Your task to perform on an android device: Open Chrome and go to settings Image 0: 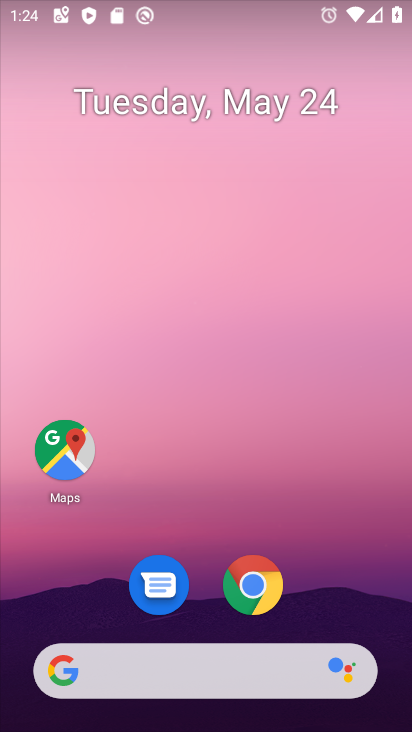
Step 0: click (268, 584)
Your task to perform on an android device: Open Chrome and go to settings Image 1: 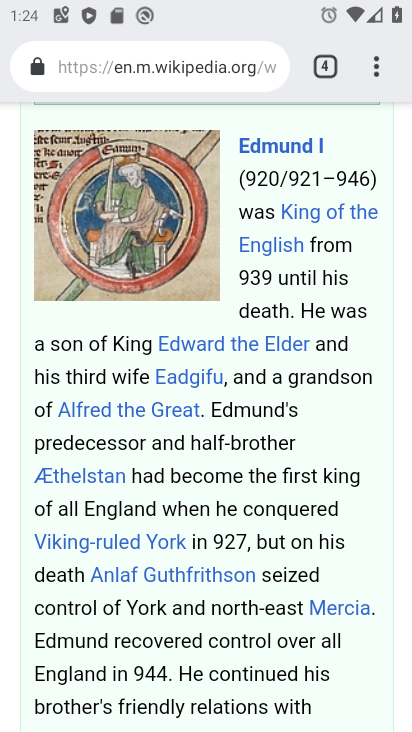
Step 1: click (377, 66)
Your task to perform on an android device: Open Chrome and go to settings Image 2: 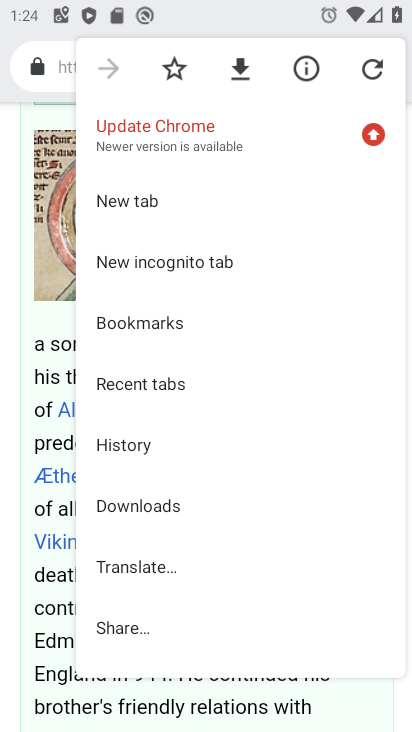
Step 2: drag from (251, 564) to (252, 327)
Your task to perform on an android device: Open Chrome and go to settings Image 3: 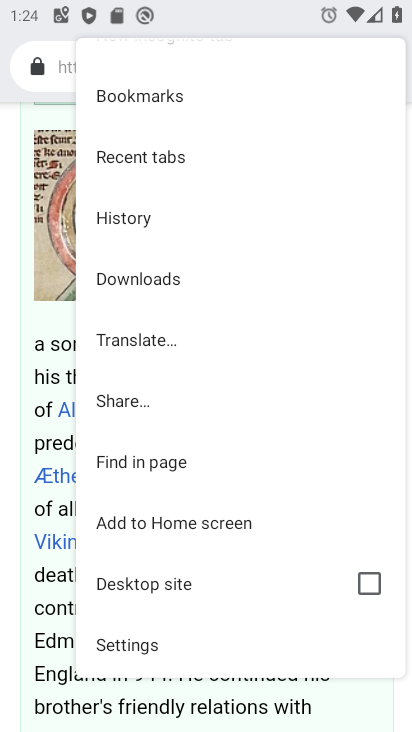
Step 3: click (169, 639)
Your task to perform on an android device: Open Chrome and go to settings Image 4: 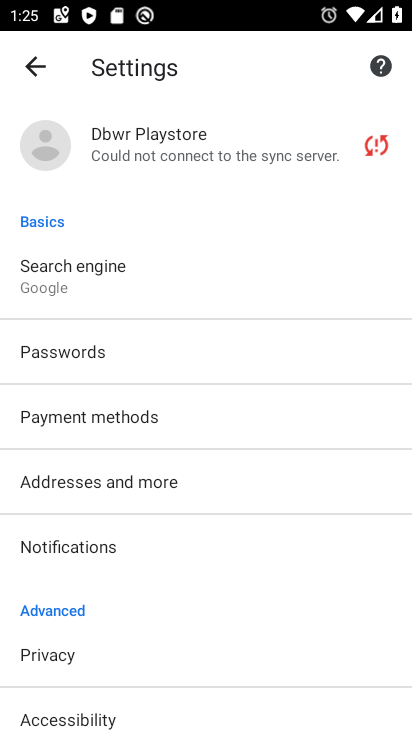
Step 4: task complete